Your task to perform on an android device: Go to Google maps Image 0: 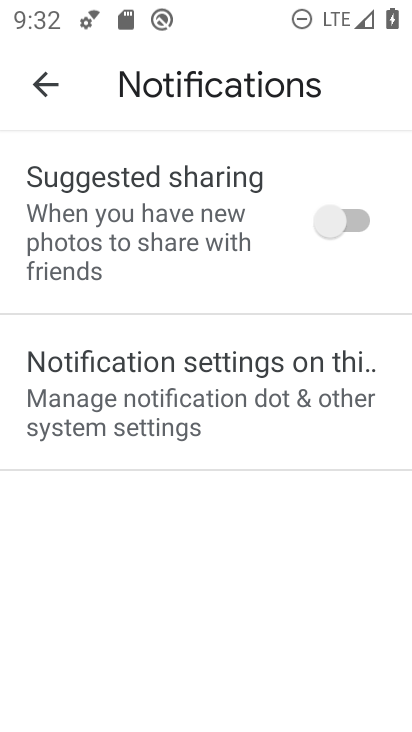
Step 0: press home button
Your task to perform on an android device: Go to Google maps Image 1: 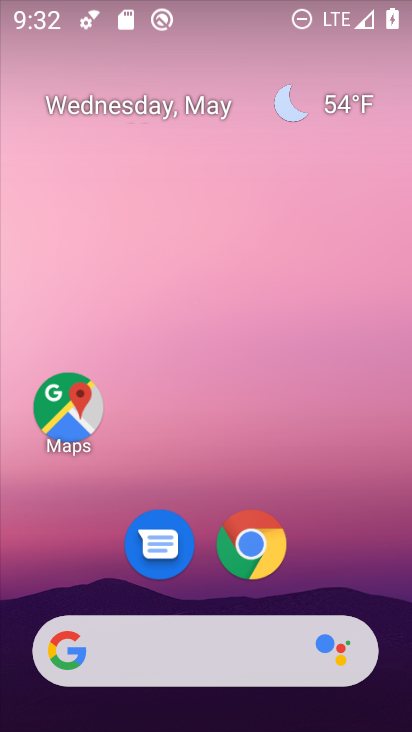
Step 1: click (64, 431)
Your task to perform on an android device: Go to Google maps Image 2: 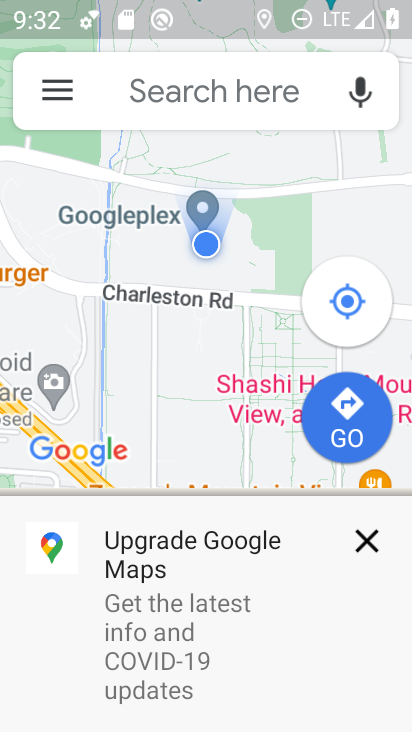
Step 2: task complete